Your task to perform on an android device: Play the last video I watched on Youtube Image 0: 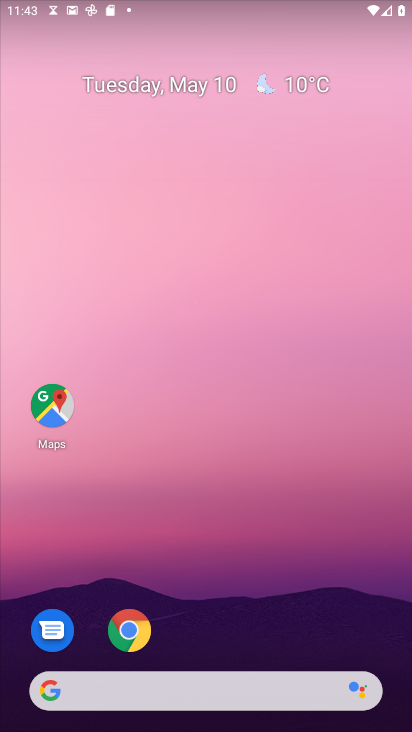
Step 0: drag from (253, 549) to (231, 47)
Your task to perform on an android device: Play the last video I watched on Youtube Image 1: 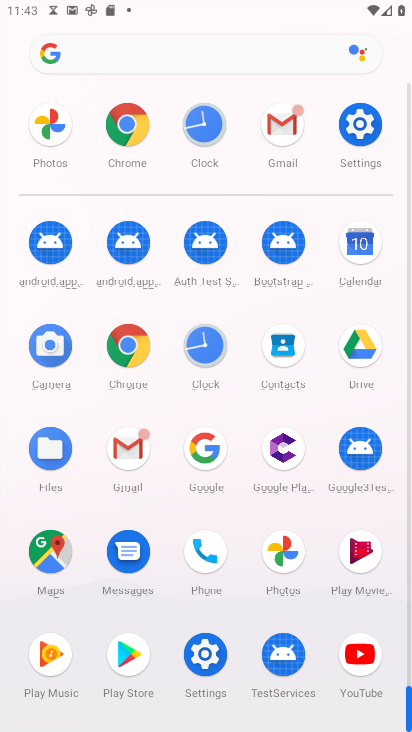
Step 1: click (361, 664)
Your task to perform on an android device: Play the last video I watched on Youtube Image 2: 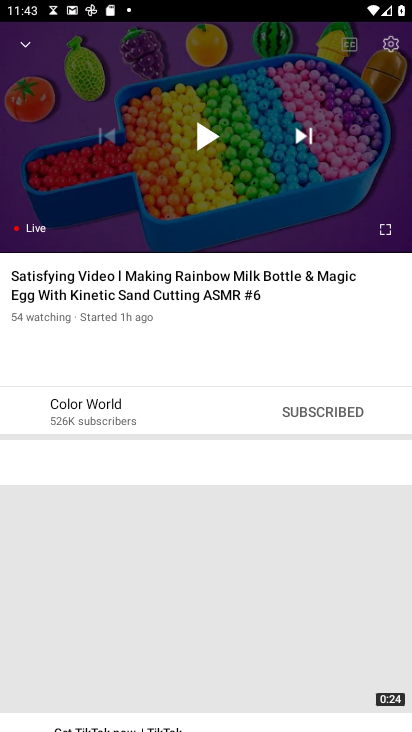
Step 2: click (203, 132)
Your task to perform on an android device: Play the last video I watched on Youtube Image 3: 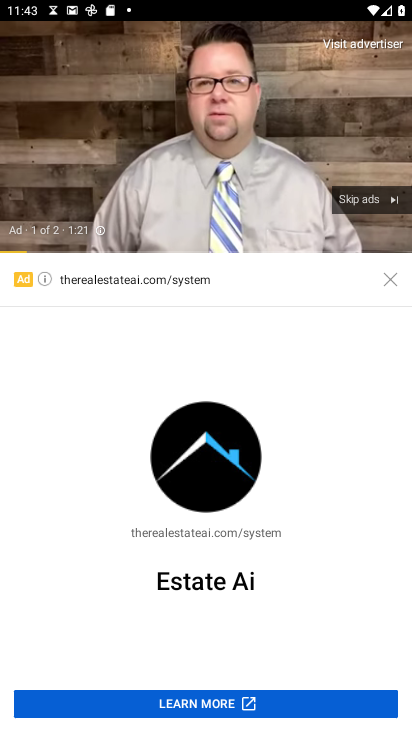
Step 3: click (385, 201)
Your task to perform on an android device: Play the last video I watched on Youtube Image 4: 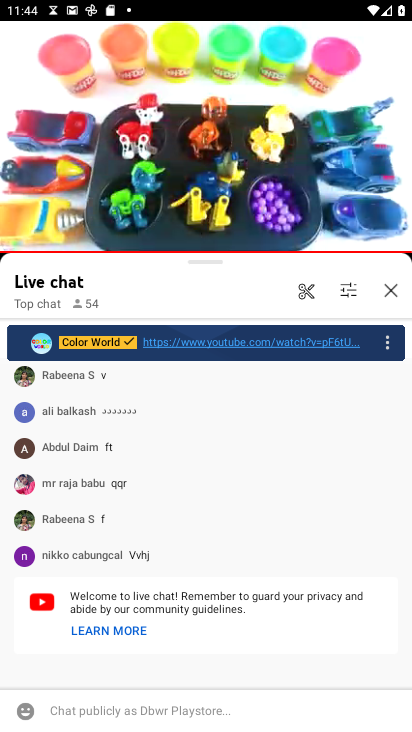
Step 4: task complete